Your task to perform on an android device: Open CNN.com Image 0: 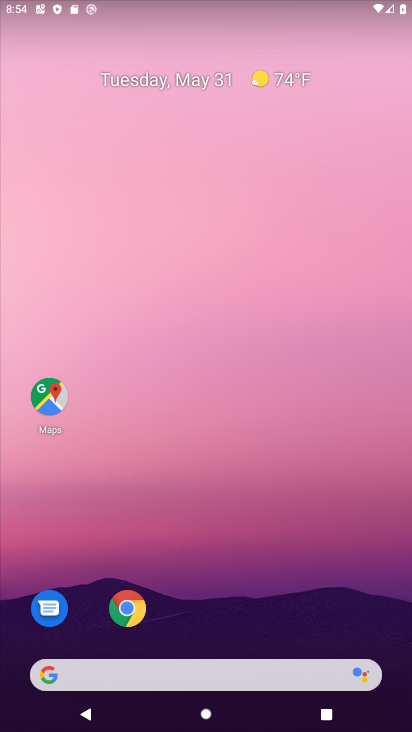
Step 0: click (130, 619)
Your task to perform on an android device: Open CNN.com Image 1: 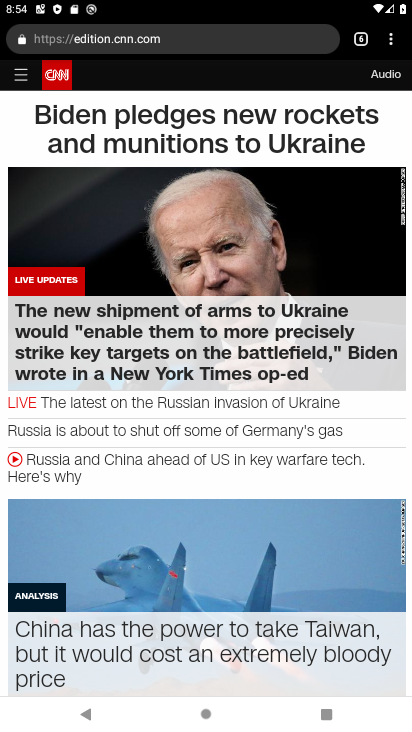
Step 1: task complete